Your task to perform on an android device: find which apps use the phone's location Image 0: 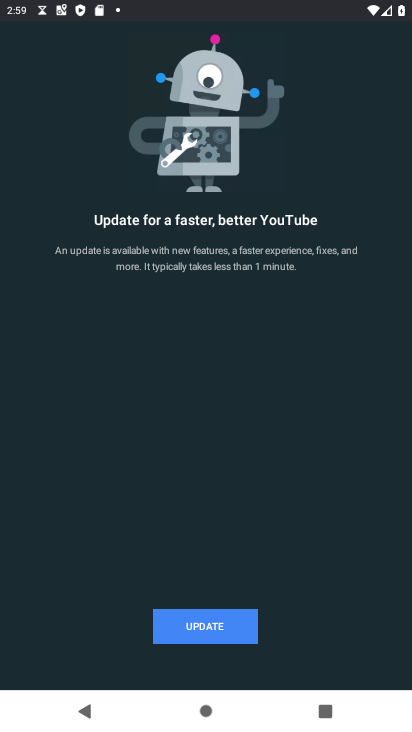
Step 0: press home button
Your task to perform on an android device: find which apps use the phone's location Image 1: 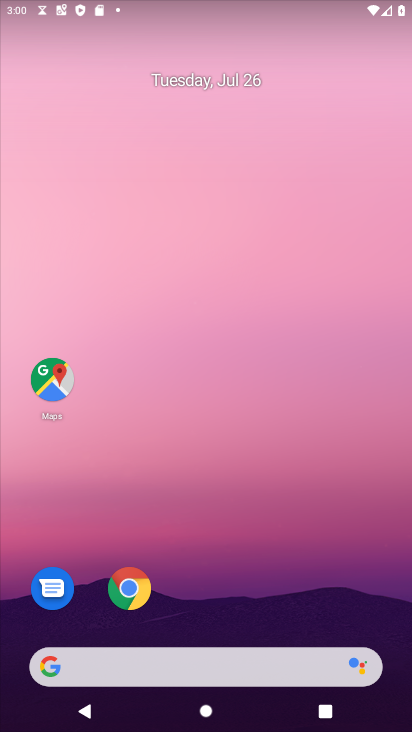
Step 1: drag from (236, 573) to (321, 73)
Your task to perform on an android device: find which apps use the phone's location Image 2: 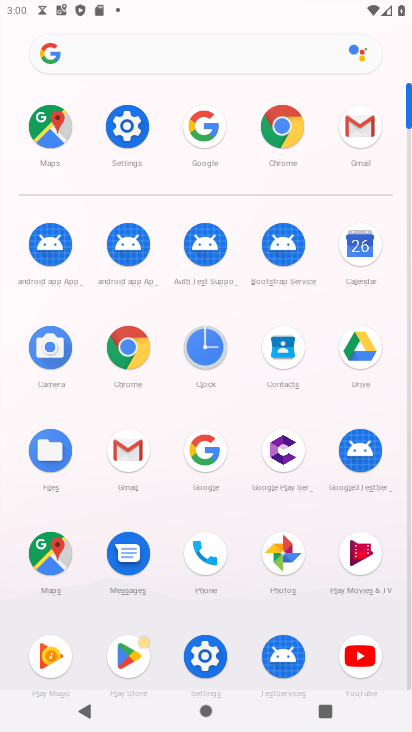
Step 2: click (100, 118)
Your task to perform on an android device: find which apps use the phone's location Image 3: 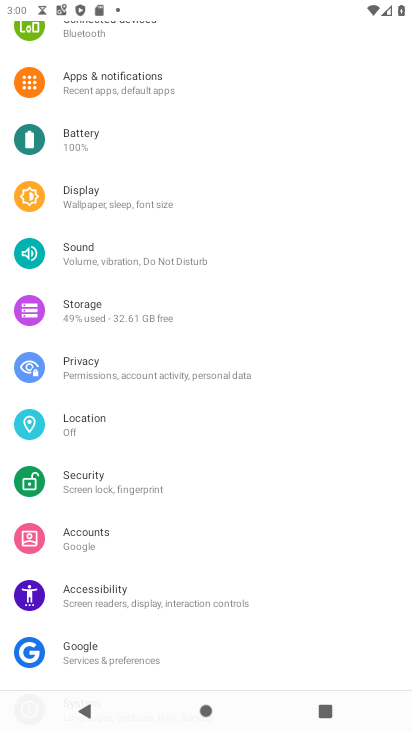
Step 3: click (99, 92)
Your task to perform on an android device: find which apps use the phone's location Image 4: 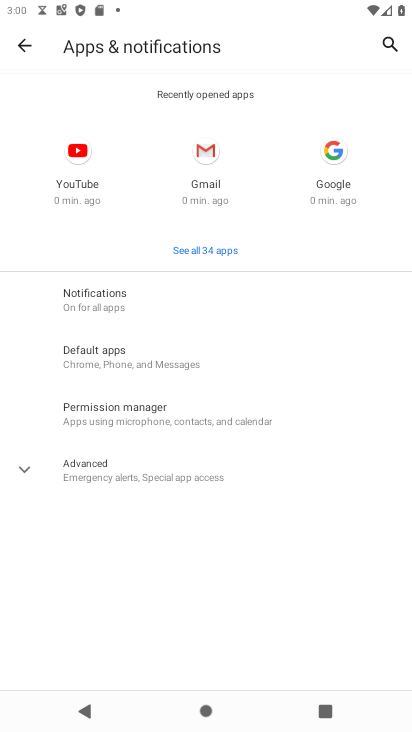
Step 4: click (89, 405)
Your task to perform on an android device: find which apps use the phone's location Image 5: 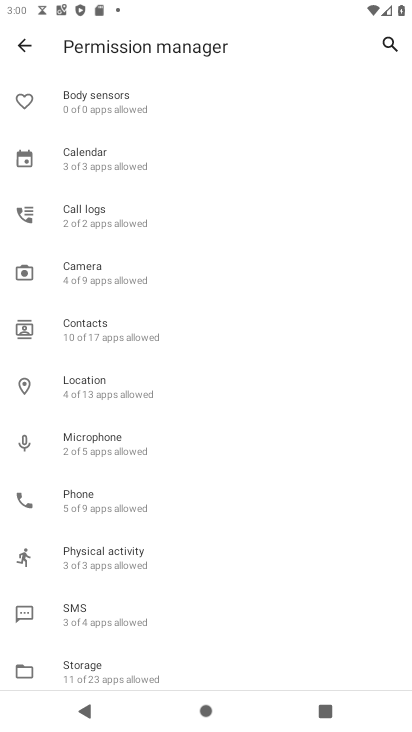
Step 5: task complete